Your task to perform on an android device: Go to ESPN.com Image 0: 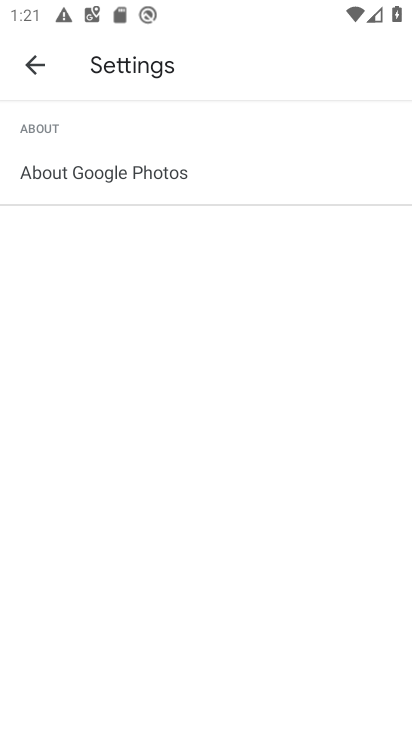
Step 0: click (43, 58)
Your task to perform on an android device: Go to ESPN.com Image 1: 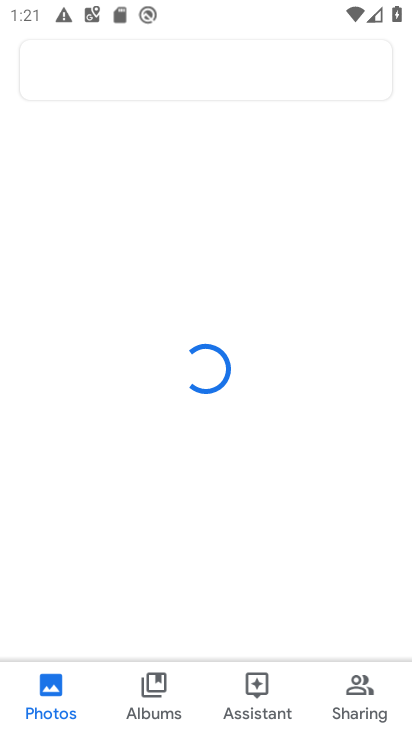
Step 1: press home button
Your task to perform on an android device: Go to ESPN.com Image 2: 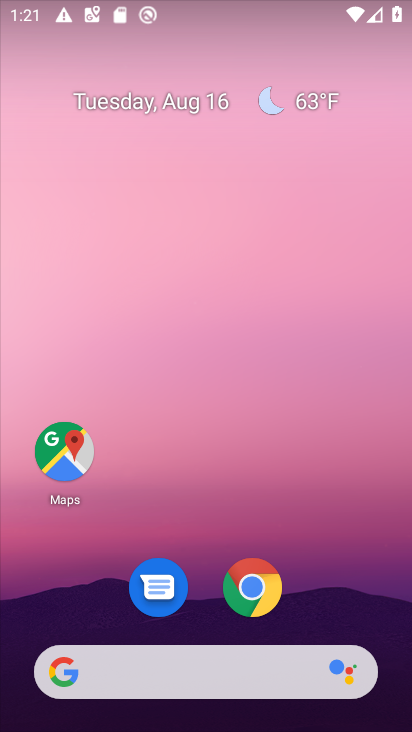
Step 2: click (238, 581)
Your task to perform on an android device: Go to ESPN.com Image 3: 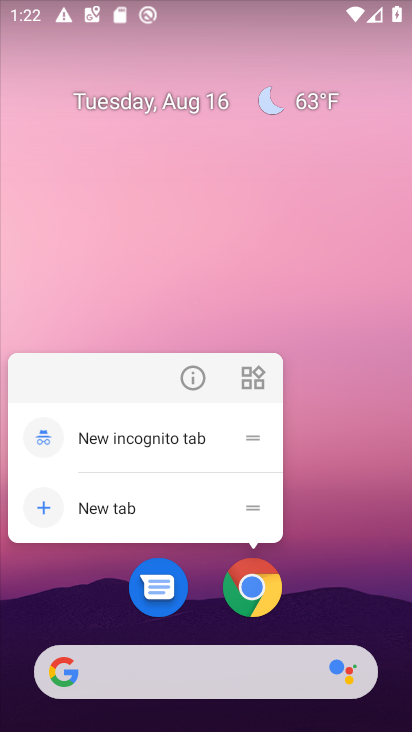
Step 3: click (246, 585)
Your task to perform on an android device: Go to ESPN.com Image 4: 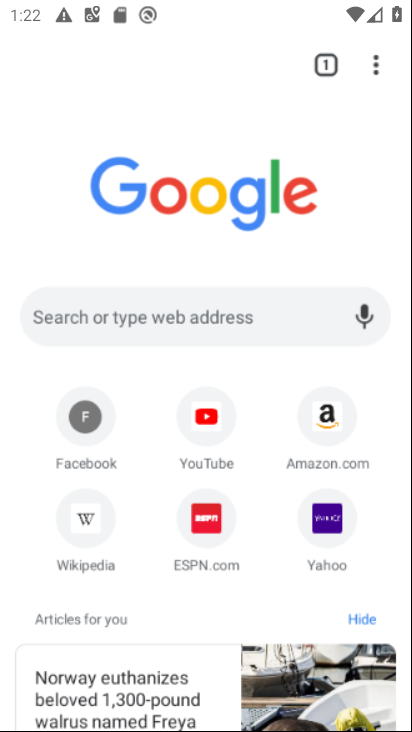
Step 4: click (199, 510)
Your task to perform on an android device: Go to ESPN.com Image 5: 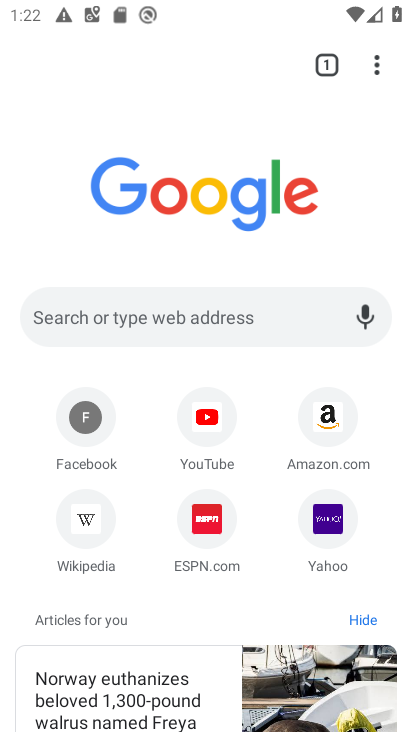
Step 5: click (219, 527)
Your task to perform on an android device: Go to ESPN.com Image 6: 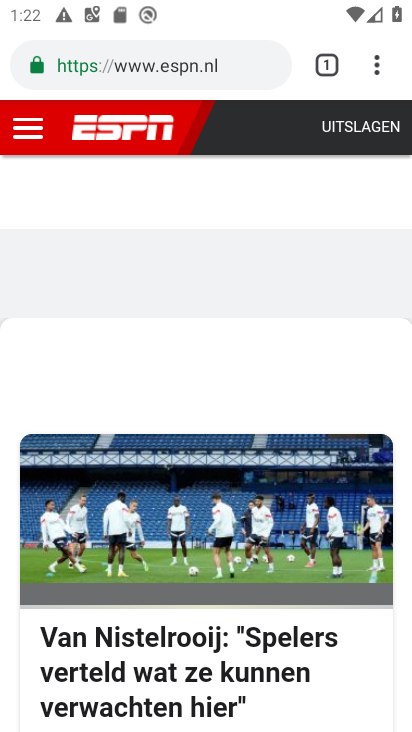
Step 6: task complete